Your task to perform on an android device: Open privacy settings Image 0: 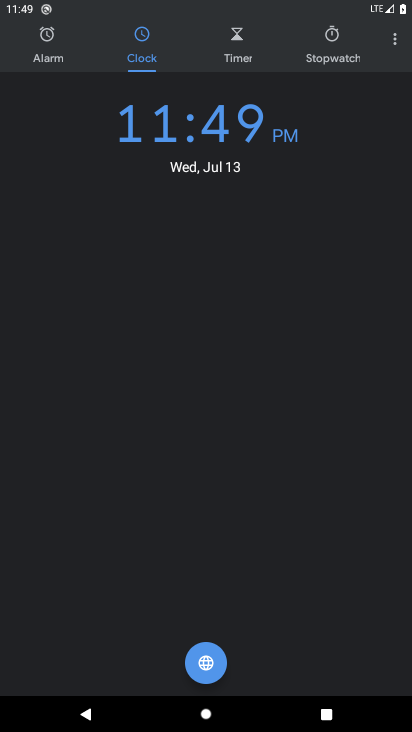
Step 0: press home button
Your task to perform on an android device: Open privacy settings Image 1: 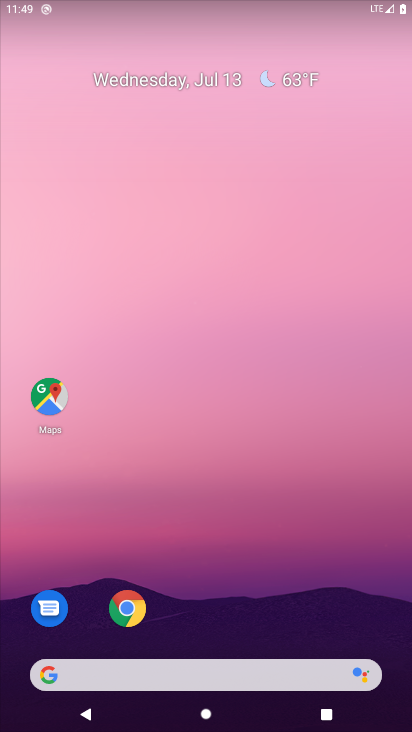
Step 1: drag from (392, 689) to (380, 0)
Your task to perform on an android device: Open privacy settings Image 2: 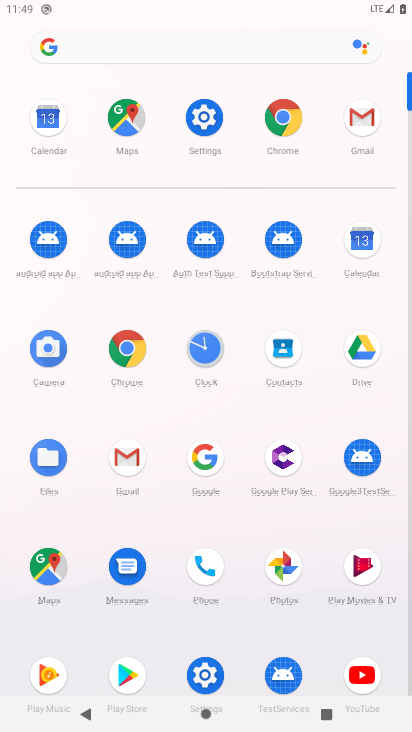
Step 2: click (193, 674)
Your task to perform on an android device: Open privacy settings Image 3: 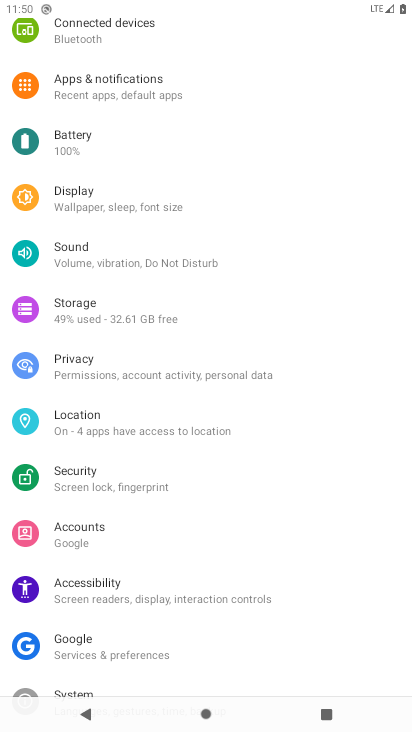
Step 3: click (83, 379)
Your task to perform on an android device: Open privacy settings Image 4: 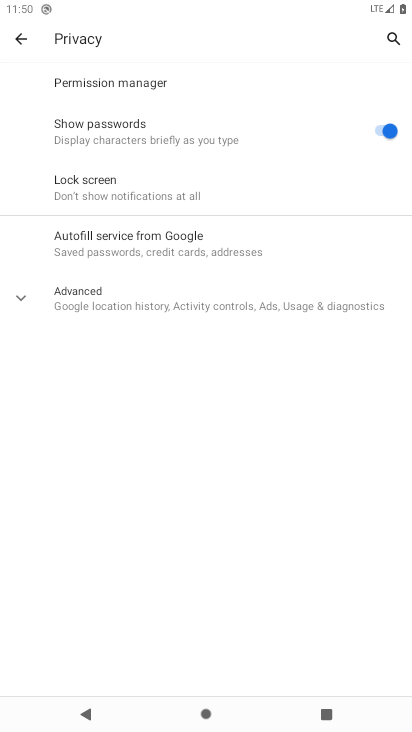
Step 4: task complete